Your task to perform on an android device: set the stopwatch Image 0: 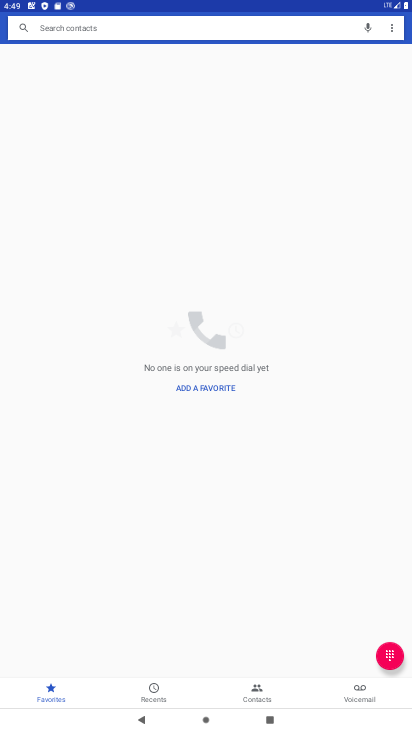
Step 0: press back button
Your task to perform on an android device: set the stopwatch Image 1: 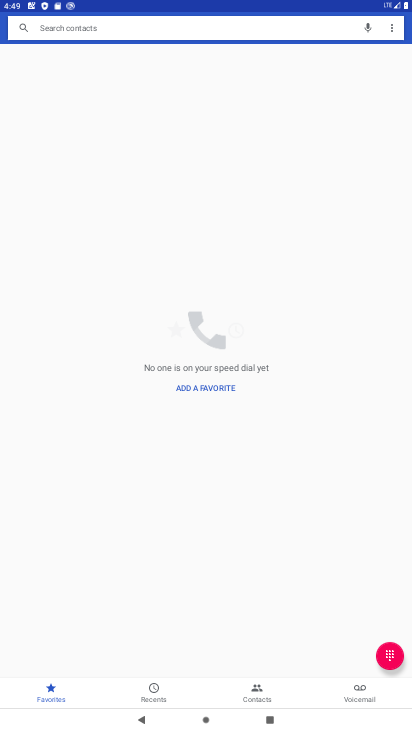
Step 1: press back button
Your task to perform on an android device: set the stopwatch Image 2: 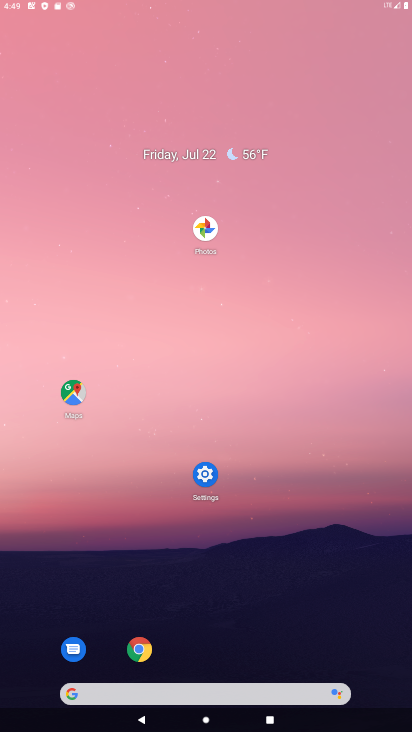
Step 2: press back button
Your task to perform on an android device: set the stopwatch Image 3: 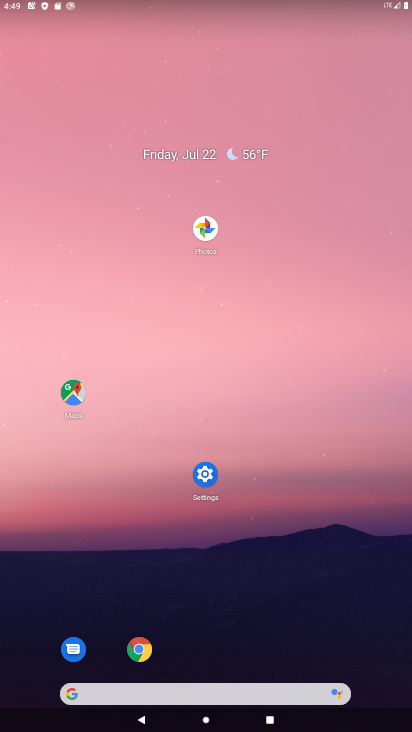
Step 3: drag from (259, 381) to (247, 24)
Your task to perform on an android device: set the stopwatch Image 4: 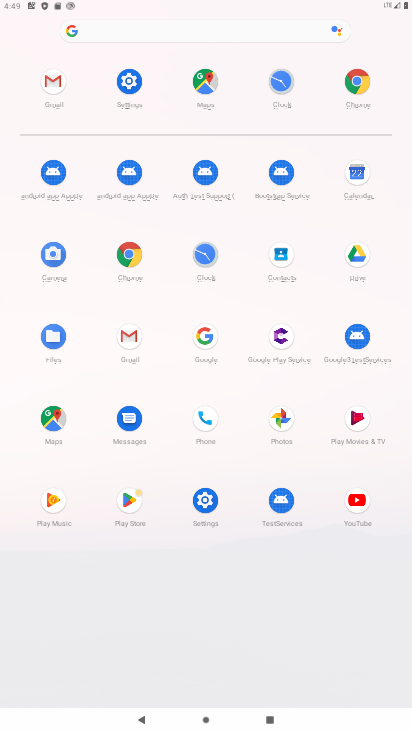
Step 4: click (201, 254)
Your task to perform on an android device: set the stopwatch Image 5: 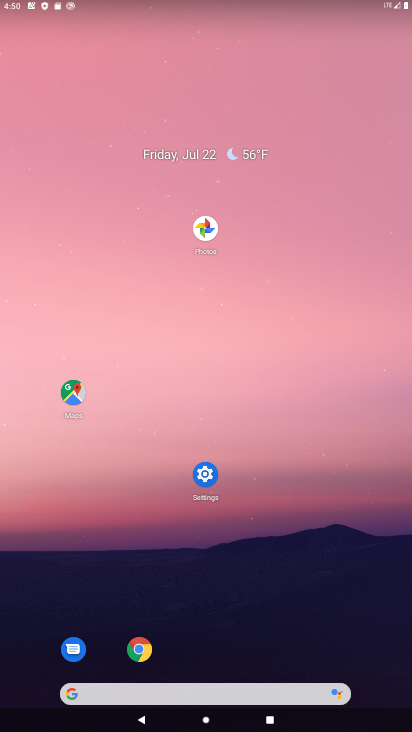
Step 5: click (202, 254)
Your task to perform on an android device: set the stopwatch Image 6: 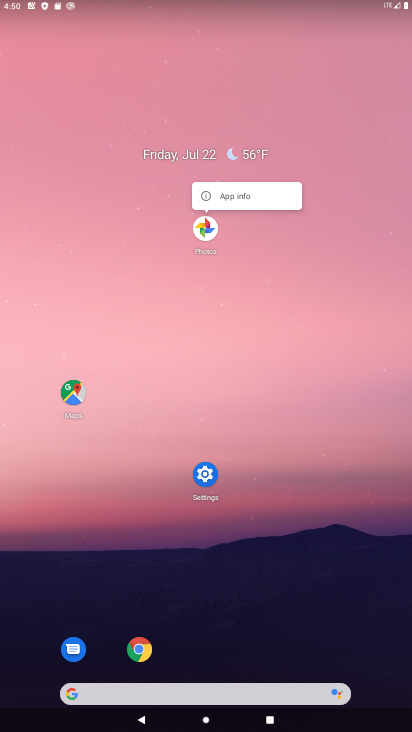
Step 6: task complete